Your task to perform on an android device: set the stopwatch Image 0: 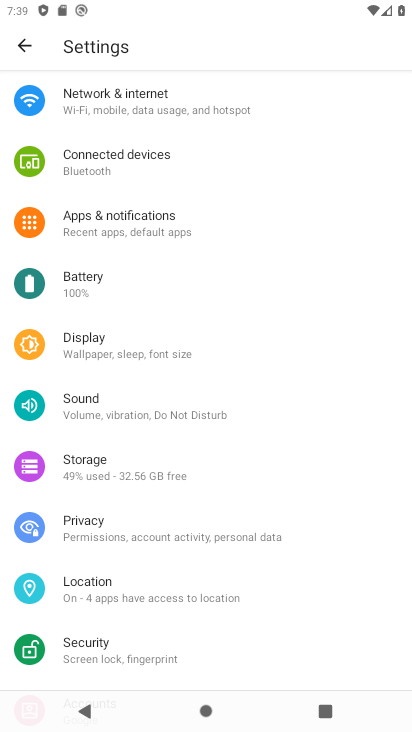
Step 0: press home button
Your task to perform on an android device: set the stopwatch Image 1: 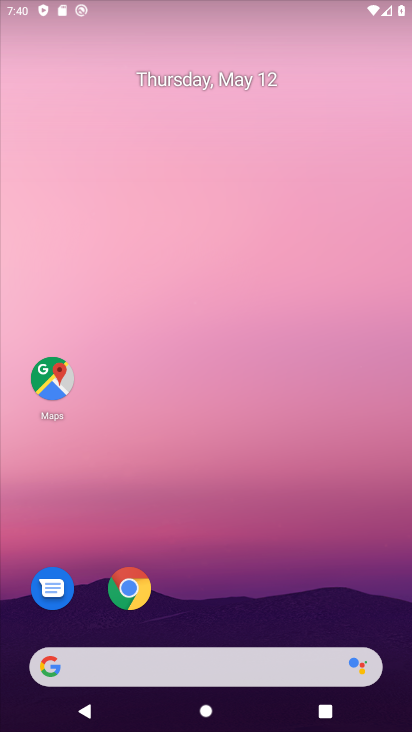
Step 1: drag from (263, 457) to (233, 85)
Your task to perform on an android device: set the stopwatch Image 2: 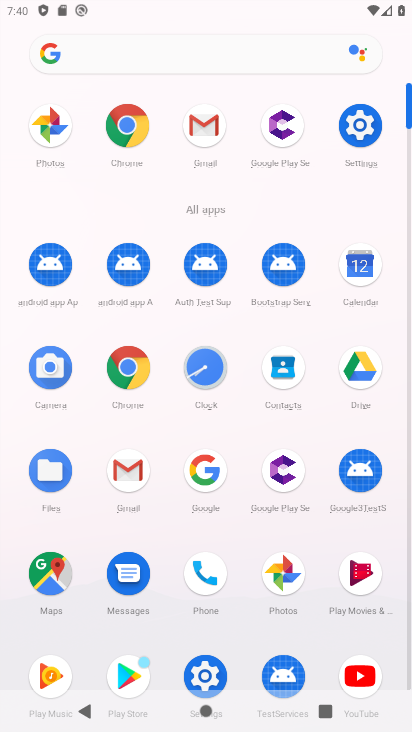
Step 2: click (188, 376)
Your task to perform on an android device: set the stopwatch Image 3: 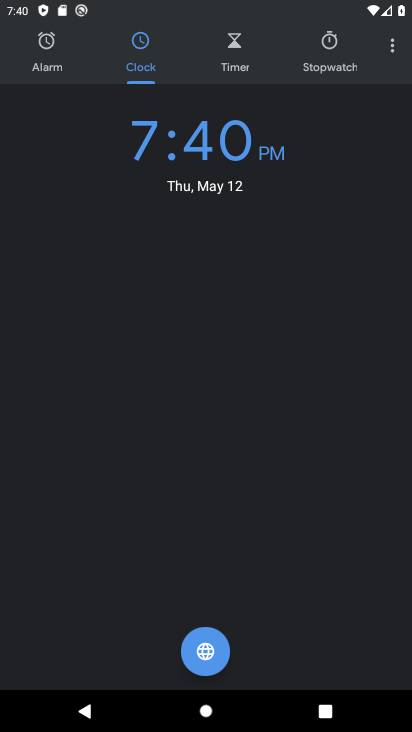
Step 3: click (326, 68)
Your task to perform on an android device: set the stopwatch Image 4: 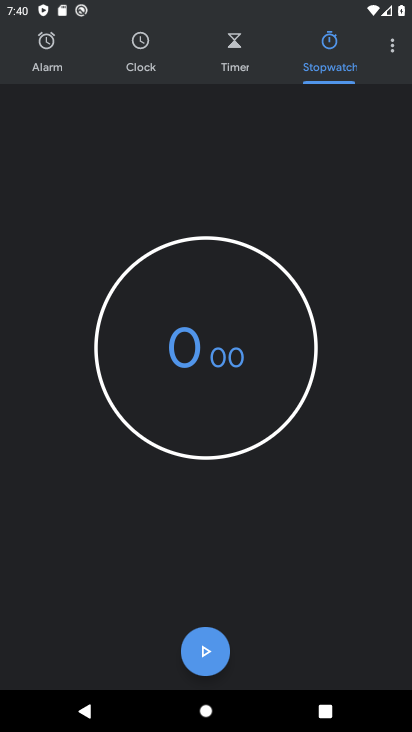
Step 4: click (184, 664)
Your task to perform on an android device: set the stopwatch Image 5: 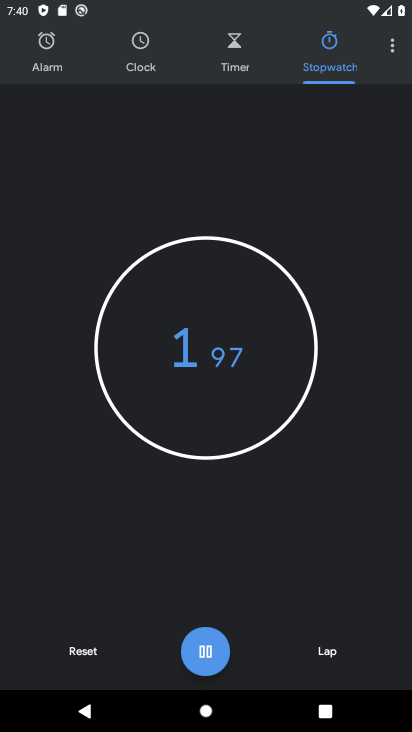
Step 5: task complete